Your task to perform on an android device: turn on improve location accuracy Image 0: 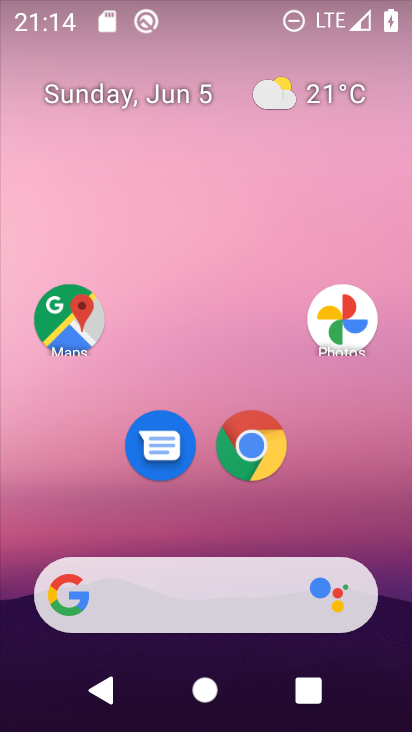
Step 0: drag from (223, 353) to (280, 21)
Your task to perform on an android device: turn on improve location accuracy Image 1: 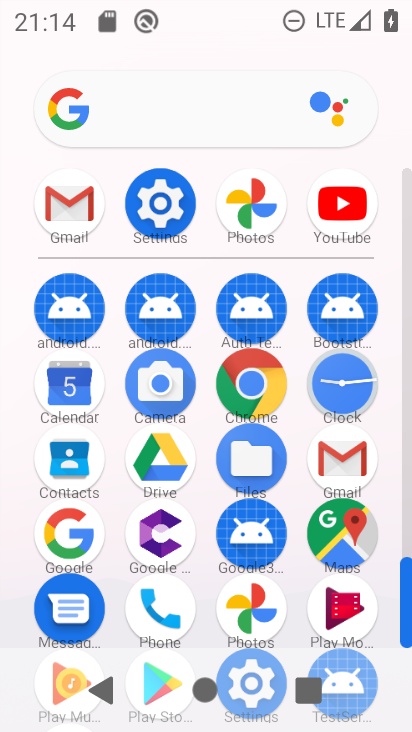
Step 1: click (169, 210)
Your task to perform on an android device: turn on improve location accuracy Image 2: 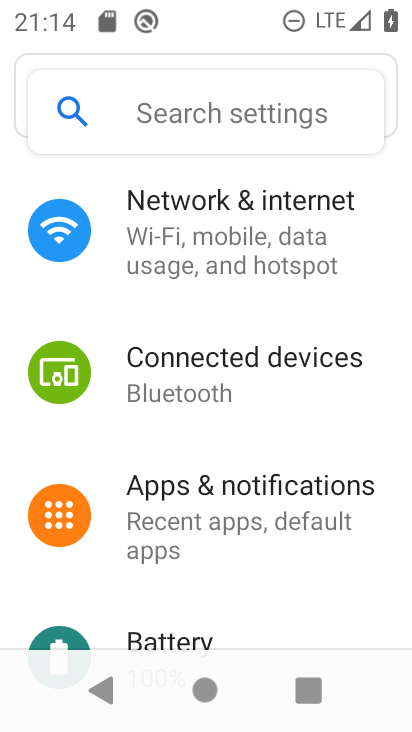
Step 2: drag from (264, 598) to (283, 509)
Your task to perform on an android device: turn on improve location accuracy Image 3: 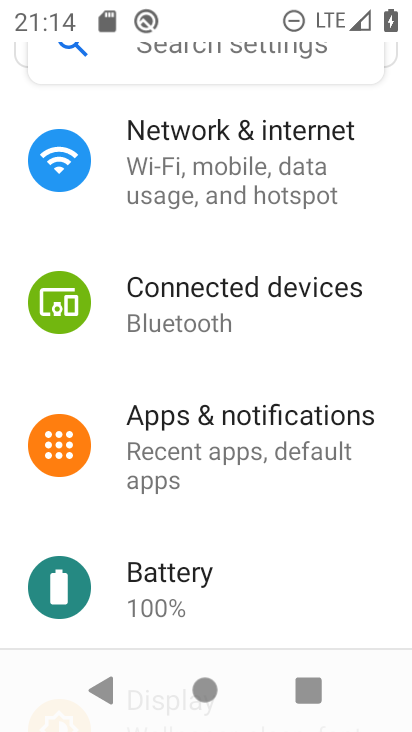
Step 3: drag from (248, 569) to (317, 297)
Your task to perform on an android device: turn on improve location accuracy Image 4: 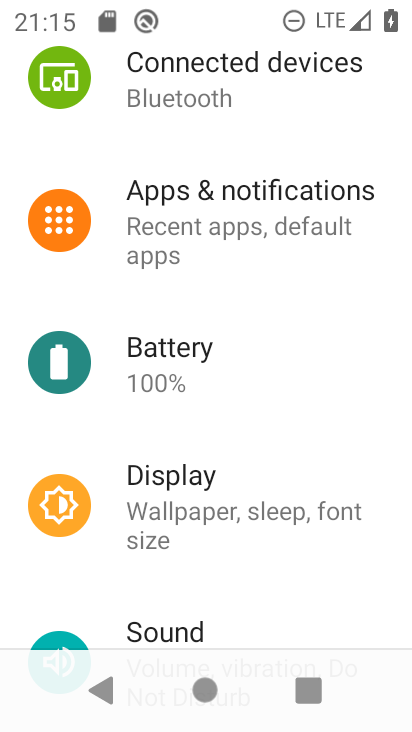
Step 4: drag from (257, 644) to (373, 14)
Your task to perform on an android device: turn on improve location accuracy Image 5: 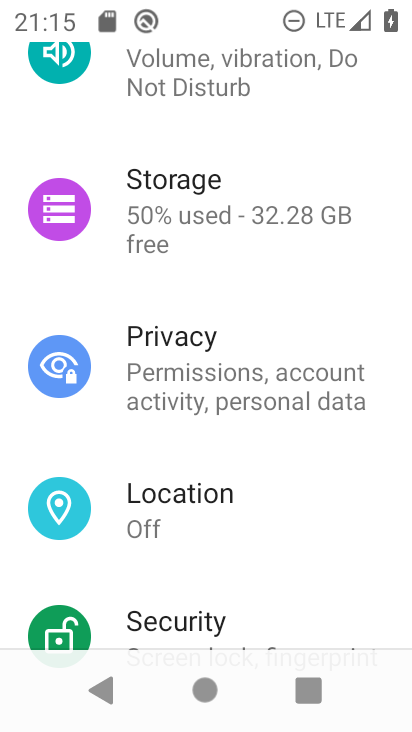
Step 5: click (181, 495)
Your task to perform on an android device: turn on improve location accuracy Image 6: 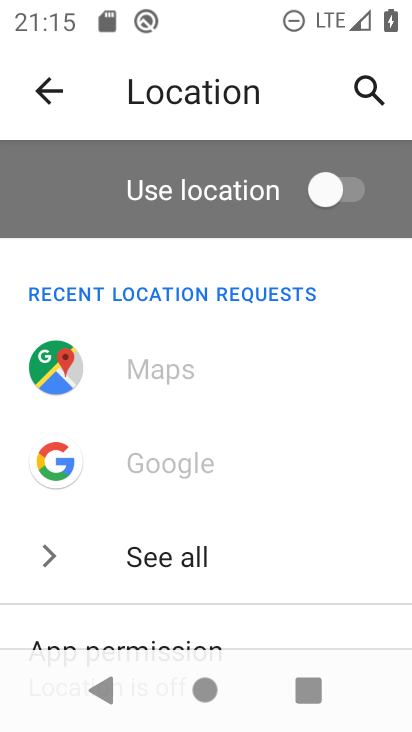
Step 6: drag from (214, 585) to (231, 271)
Your task to perform on an android device: turn on improve location accuracy Image 7: 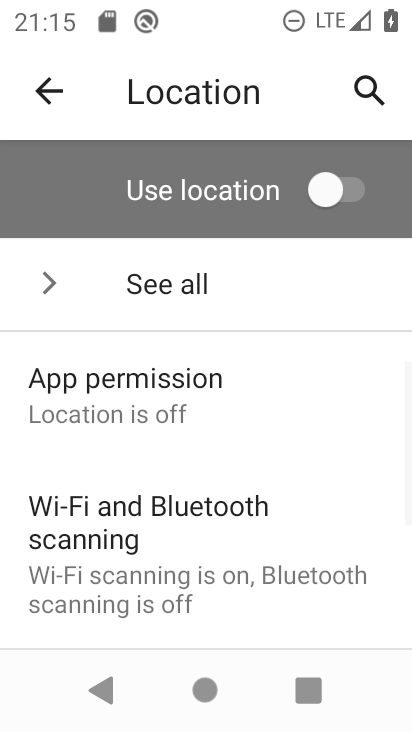
Step 7: drag from (271, 567) to (291, 194)
Your task to perform on an android device: turn on improve location accuracy Image 8: 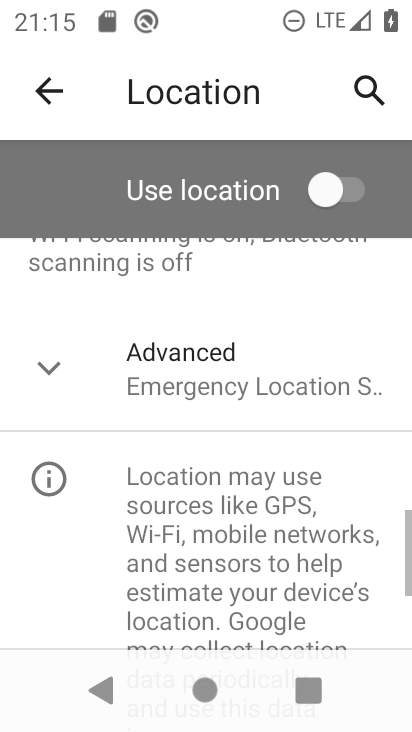
Step 8: click (172, 386)
Your task to perform on an android device: turn on improve location accuracy Image 9: 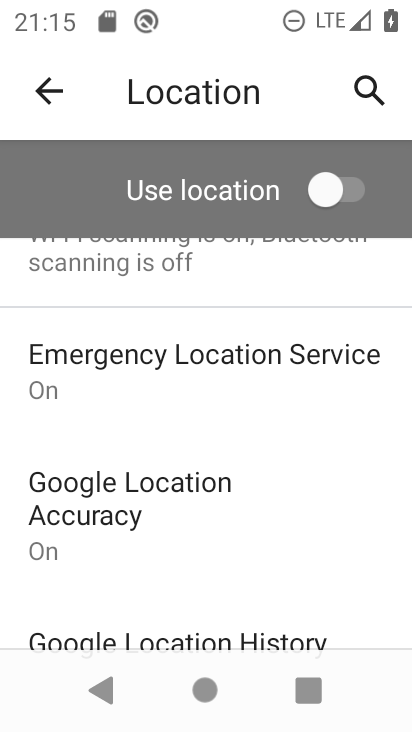
Step 9: click (192, 500)
Your task to perform on an android device: turn on improve location accuracy Image 10: 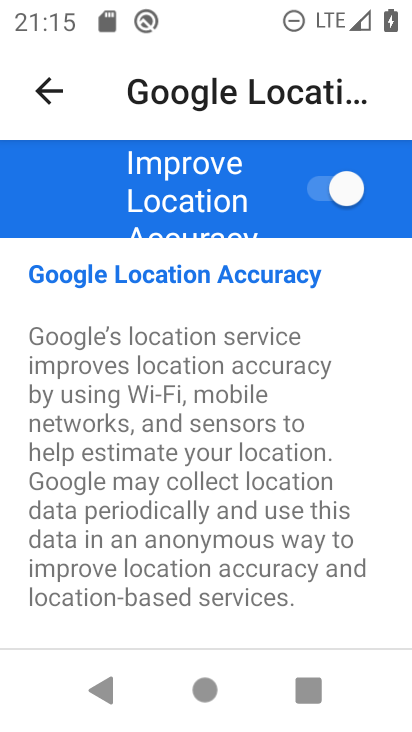
Step 10: task complete